Your task to perform on an android device: Open ESPN.com Image 0: 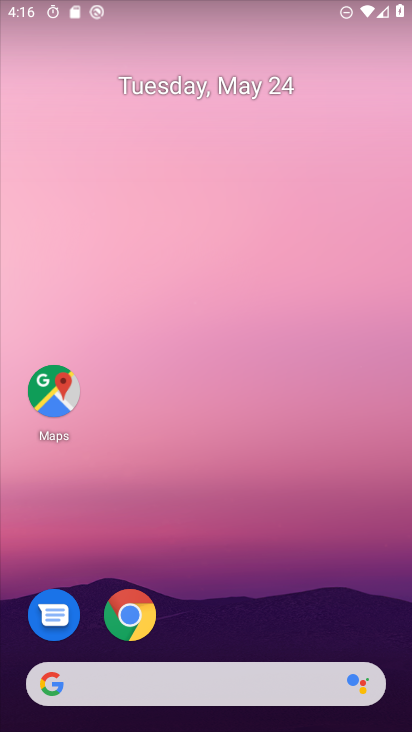
Step 0: drag from (227, 627) to (323, 98)
Your task to perform on an android device: Open ESPN.com Image 1: 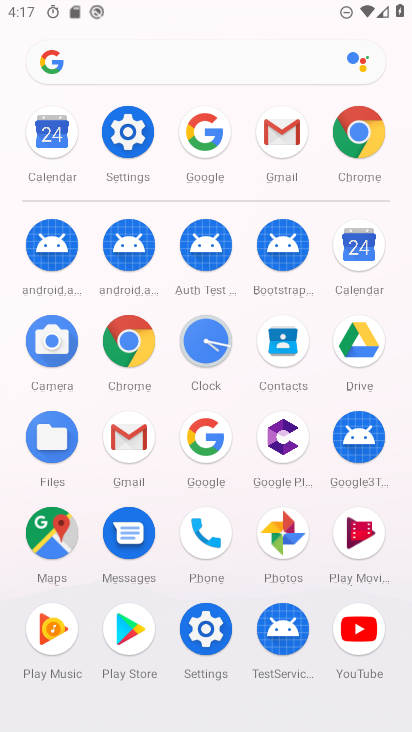
Step 1: click (357, 157)
Your task to perform on an android device: Open ESPN.com Image 2: 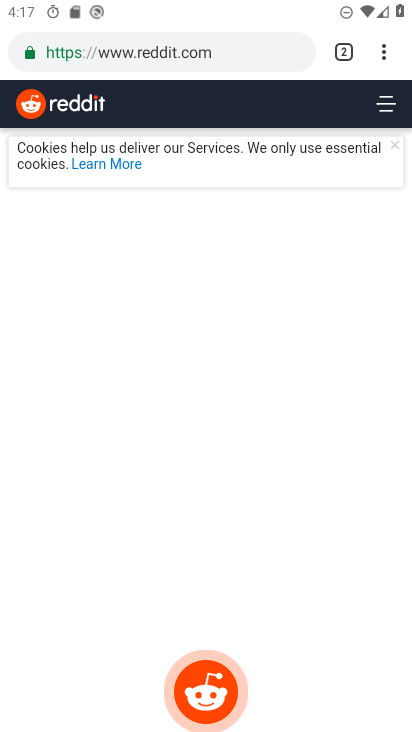
Step 2: click (246, 47)
Your task to perform on an android device: Open ESPN.com Image 3: 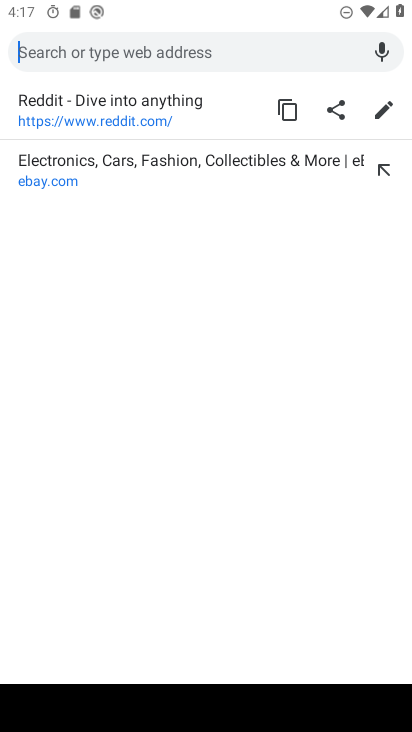
Step 3: type "espn"
Your task to perform on an android device: Open ESPN.com Image 4: 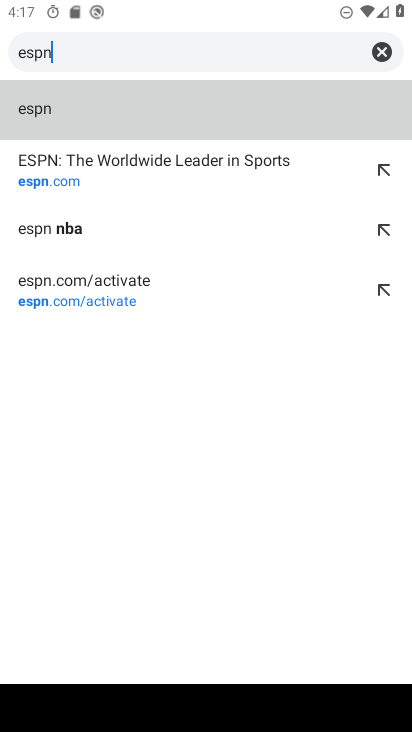
Step 4: click (212, 178)
Your task to perform on an android device: Open ESPN.com Image 5: 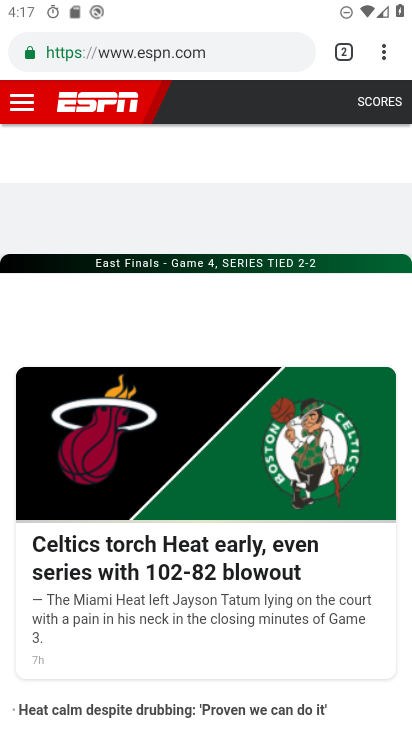
Step 5: task complete